Your task to perform on an android device: What's the weather going to be tomorrow? Image 0: 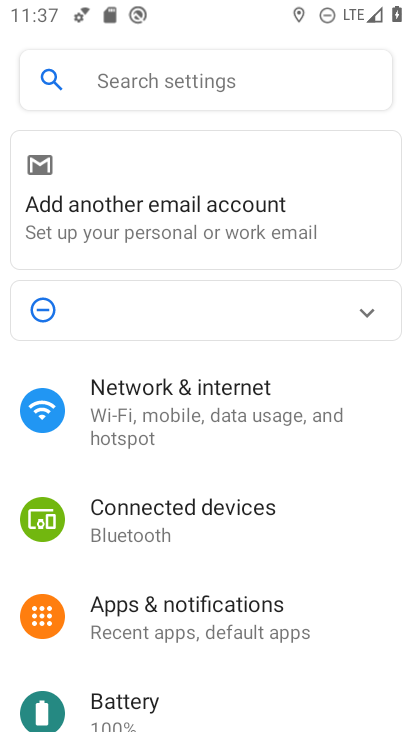
Step 0: press home button
Your task to perform on an android device: What's the weather going to be tomorrow? Image 1: 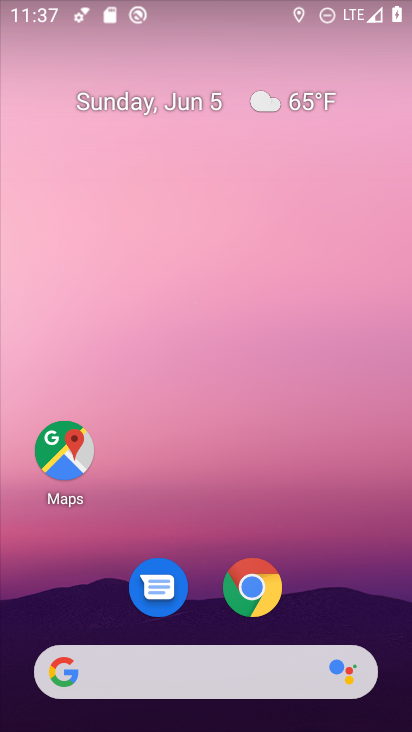
Step 1: click (324, 105)
Your task to perform on an android device: What's the weather going to be tomorrow? Image 2: 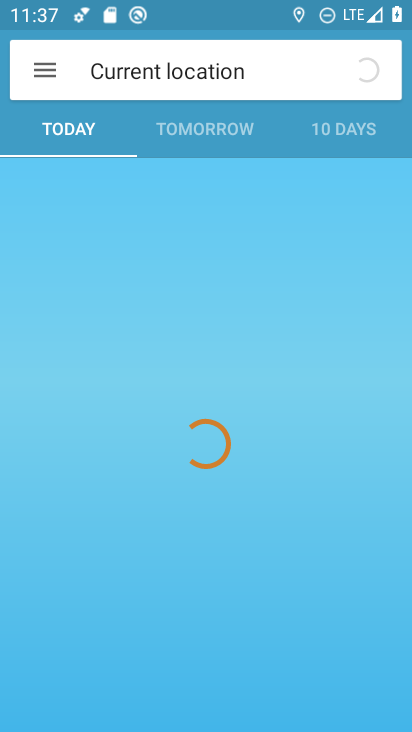
Step 2: click (226, 127)
Your task to perform on an android device: What's the weather going to be tomorrow? Image 3: 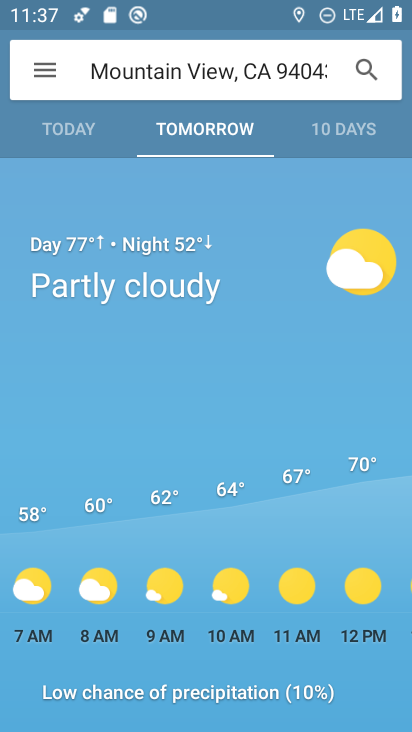
Step 3: task complete